Your task to perform on an android device: What's on my calendar today? Image 0: 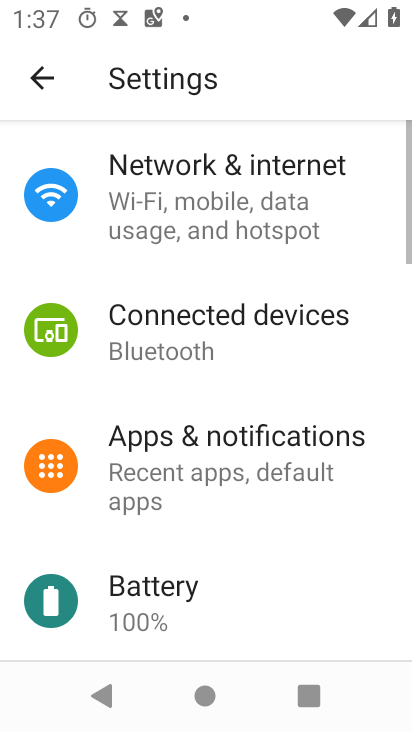
Step 0: press home button
Your task to perform on an android device: What's on my calendar today? Image 1: 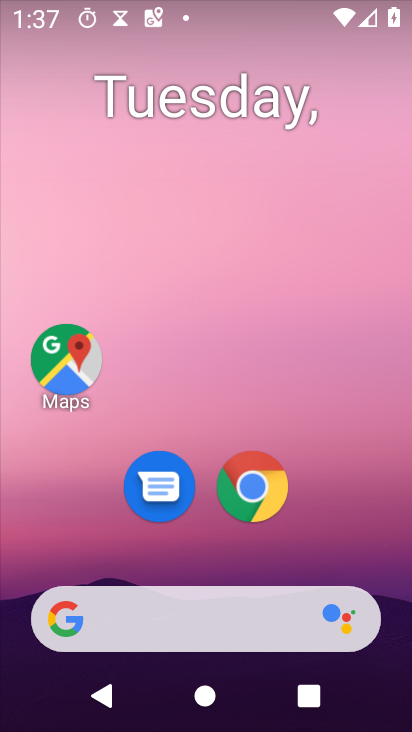
Step 1: drag from (356, 567) to (309, 157)
Your task to perform on an android device: What's on my calendar today? Image 2: 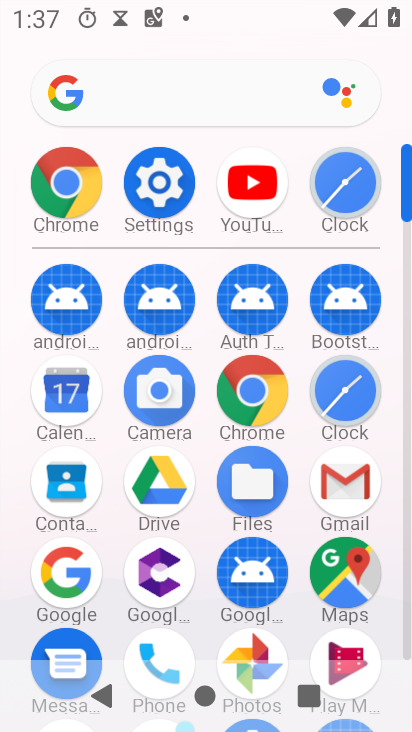
Step 2: click (72, 384)
Your task to perform on an android device: What's on my calendar today? Image 3: 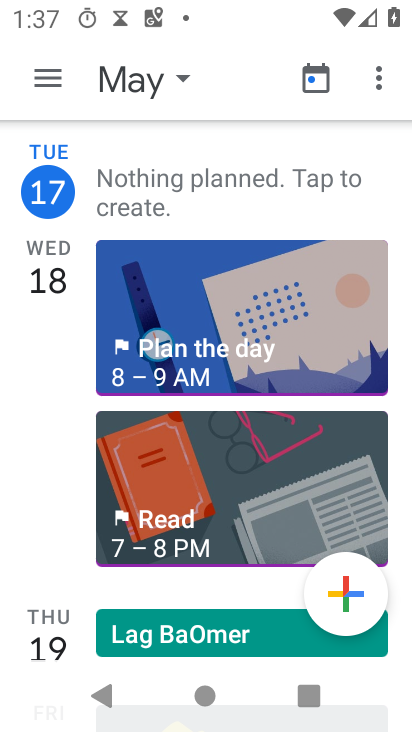
Step 3: task complete